Your task to perform on an android device: change the clock display to analog Image 0: 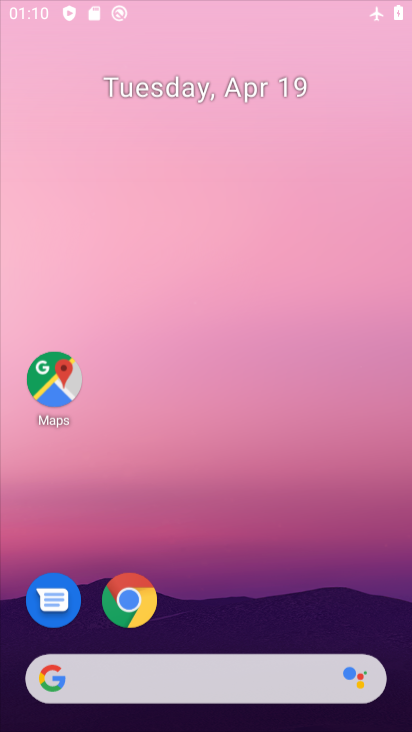
Step 0: drag from (181, 297) to (302, 24)
Your task to perform on an android device: change the clock display to analog Image 1: 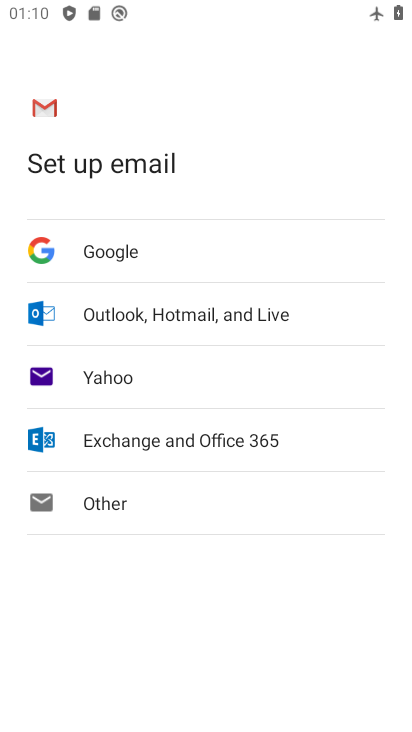
Step 1: press home button
Your task to perform on an android device: change the clock display to analog Image 2: 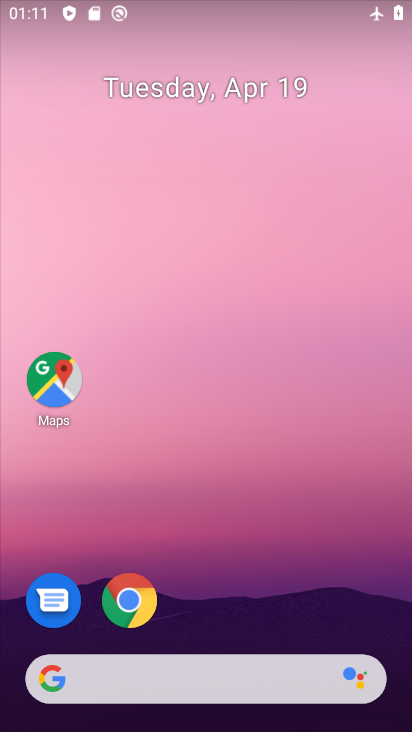
Step 2: drag from (197, 636) to (211, 5)
Your task to perform on an android device: change the clock display to analog Image 3: 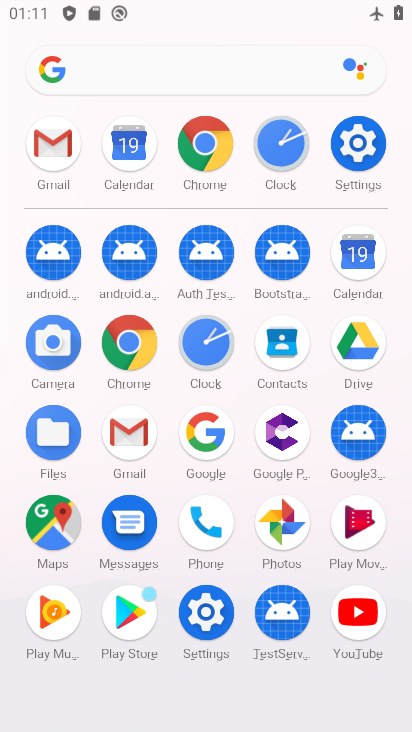
Step 3: click (193, 354)
Your task to perform on an android device: change the clock display to analog Image 4: 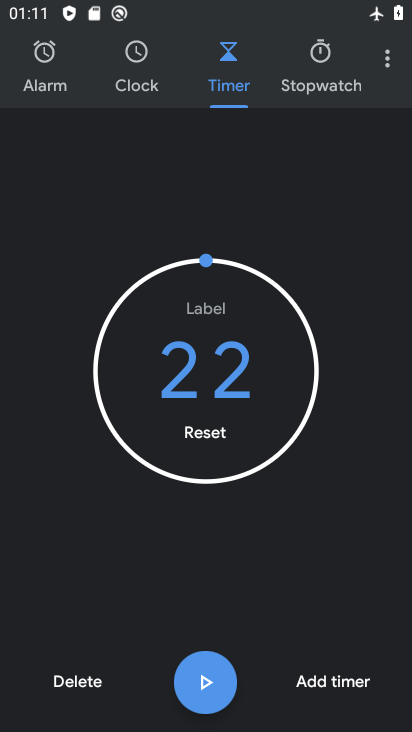
Step 4: click (378, 64)
Your task to perform on an android device: change the clock display to analog Image 5: 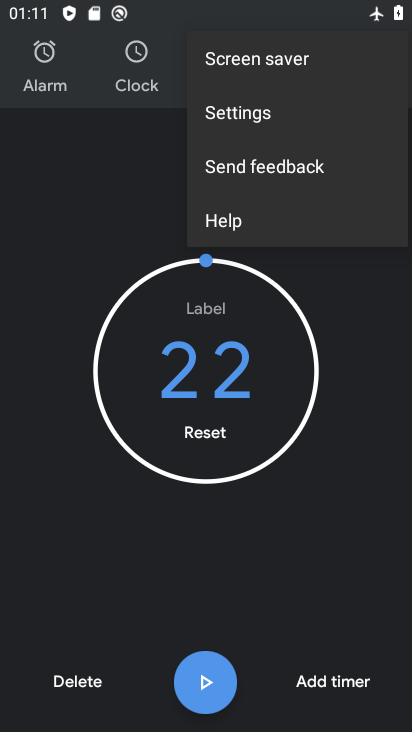
Step 5: click (297, 114)
Your task to perform on an android device: change the clock display to analog Image 6: 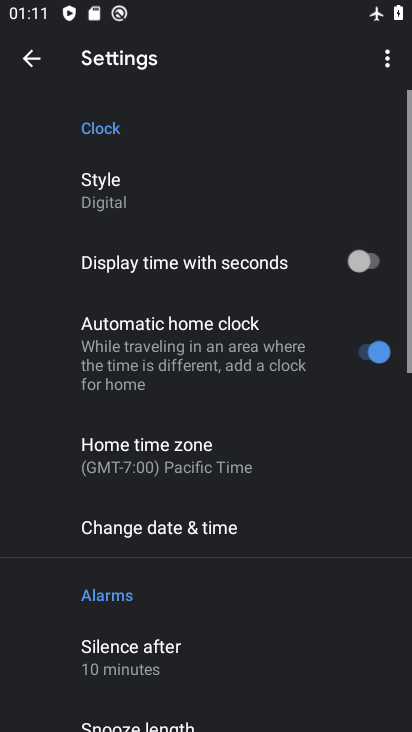
Step 6: click (129, 214)
Your task to perform on an android device: change the clock display to analog Image 7: 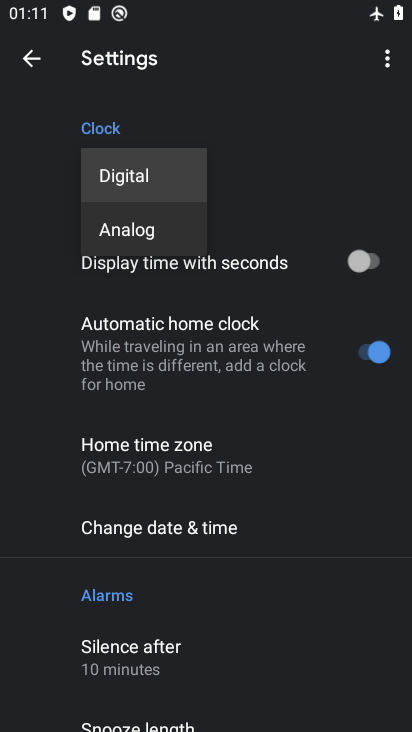
Step 7: click (125, 224)
Your task to perform on an android device: change the clock display to analog Image 8: 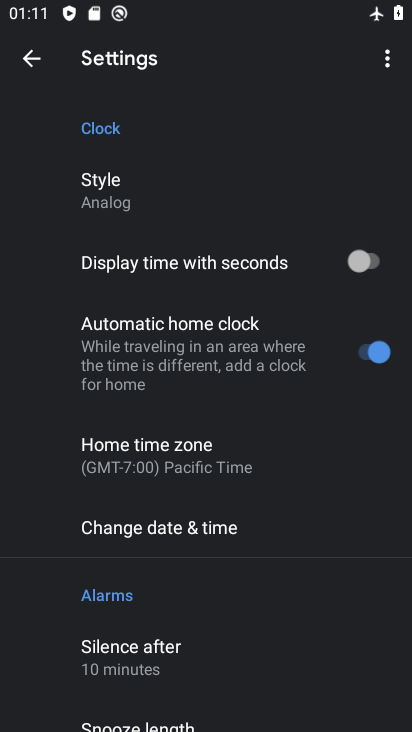
Step 8: task complete